Your task to perform on an android device: visit the assistant section in the google photos Image 0: 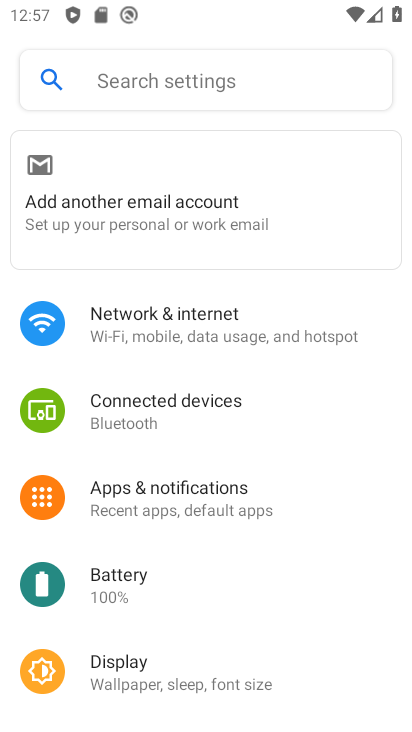
Step 0: press home button
Your task to perform on an android device: visit the assistant section in the google photos Image 1: 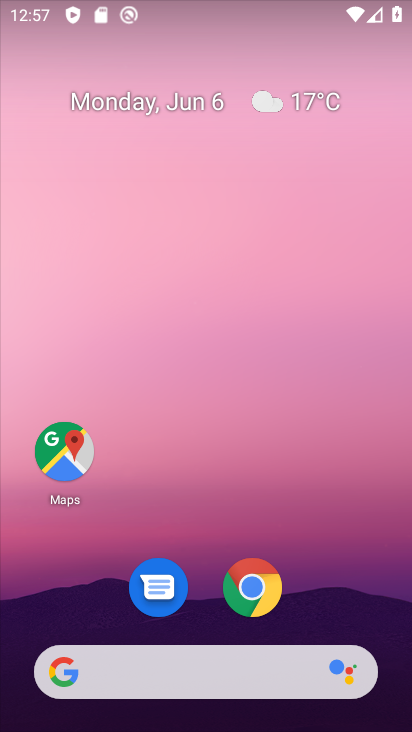
Step 1: drag from (238, 559) to (255, 89)
Your task to perform on an android device: visit the assistant section in the google photos Image 2: 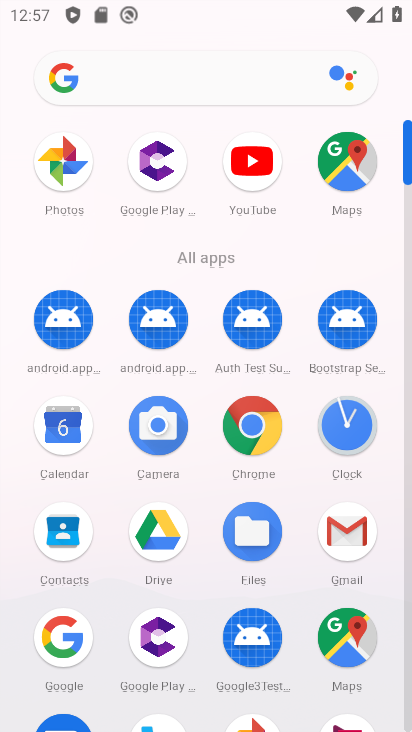
Step 2: drag from (259, 481) to (258, 270)
Your task to perform on an android device: visit the assistant section in the google photos Image 3: 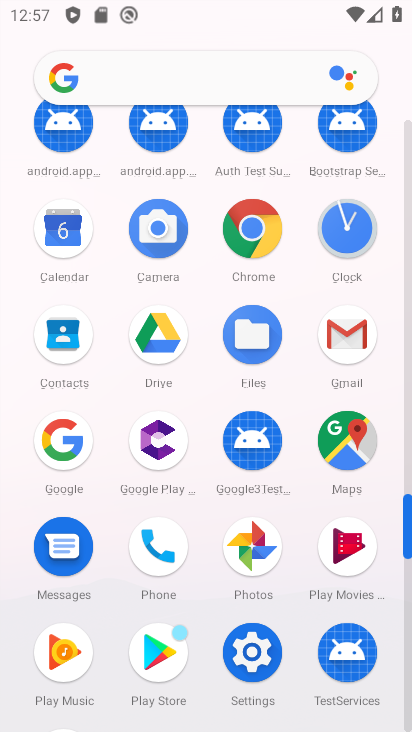
Step 3: click (248, 537)
Your task to perform on an android device: visit the assistant section in the google photos Image 4: 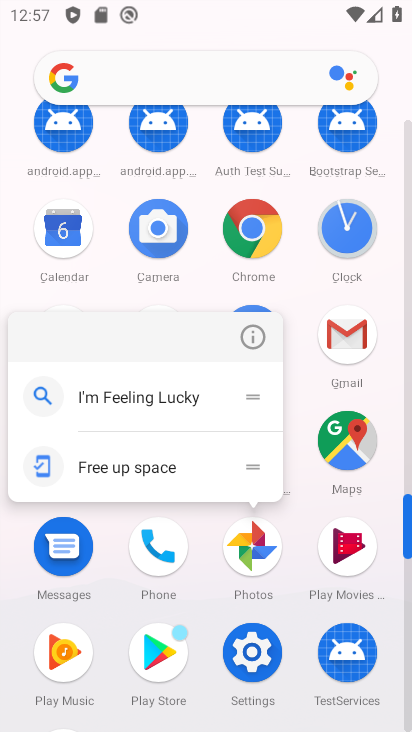
Step 4: click (250, 536)
Your task to perform on an android device: visit the assistant section in the google photos Image 5: 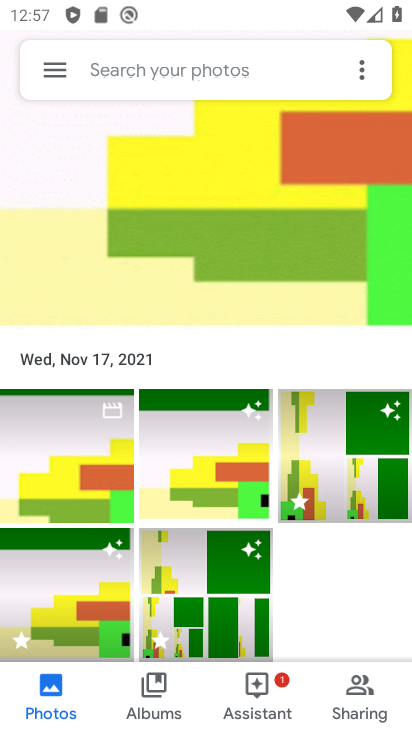
Step 5: click (278, 696)
Your task to perform on an android device: visit the assistant section in the google photos Image 6: 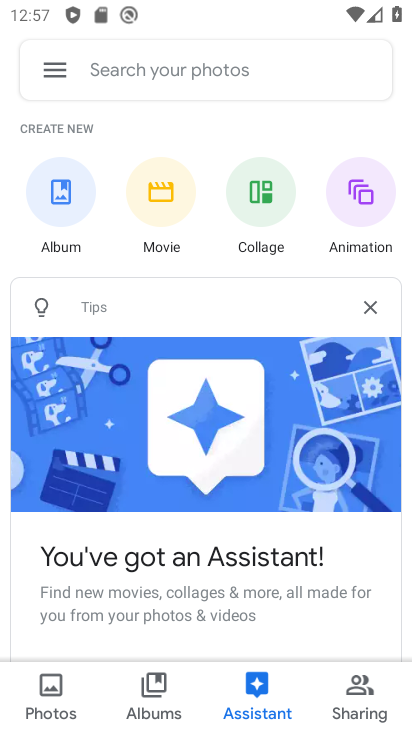
Step 6: task complete